Your task to perform on an android device: toggle improve location accuracy Image 0: 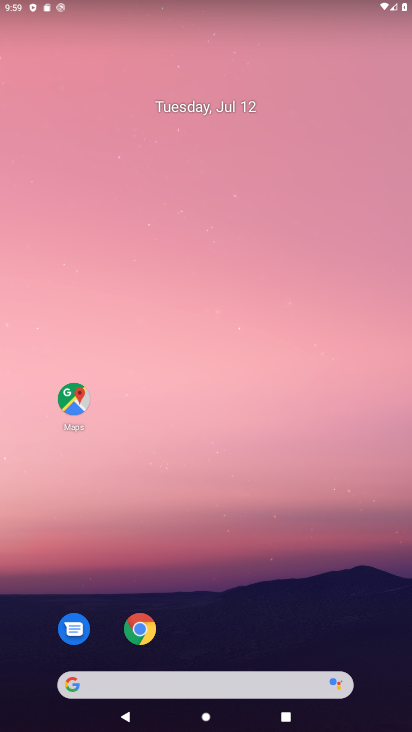
Step 0: drag from (343, 546) to (292, 82)
Your task to perform on an android device: toggle improve location accuracy Image 1: 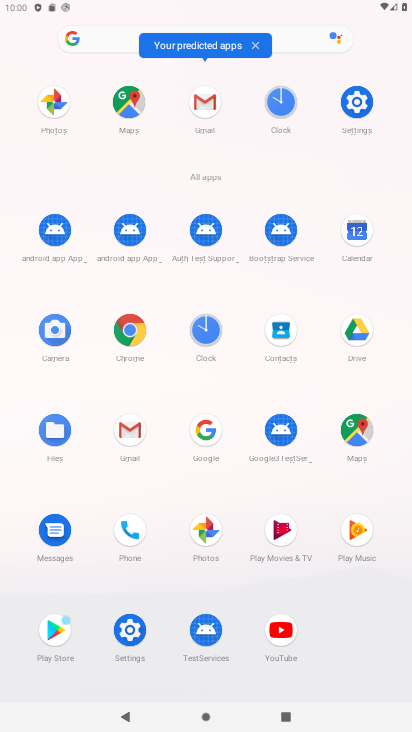
Step 1: click (132, 628)
Your task to perform on an android device: toggle improve location accuracy Image 2: 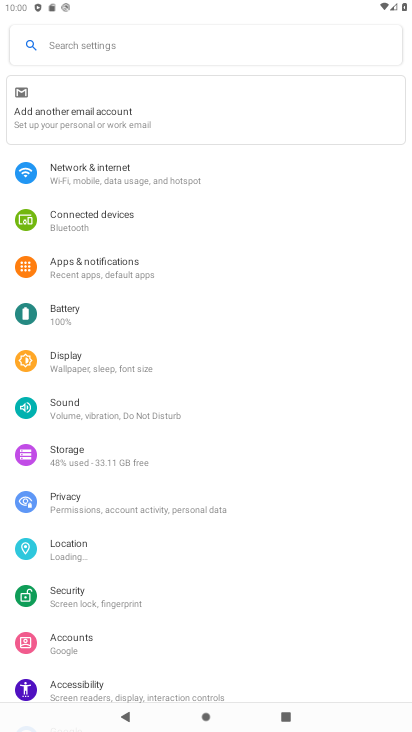
Step 2: click (113, 555)
Your task to perform on an android device: toggle improve location accuracy Image 3: 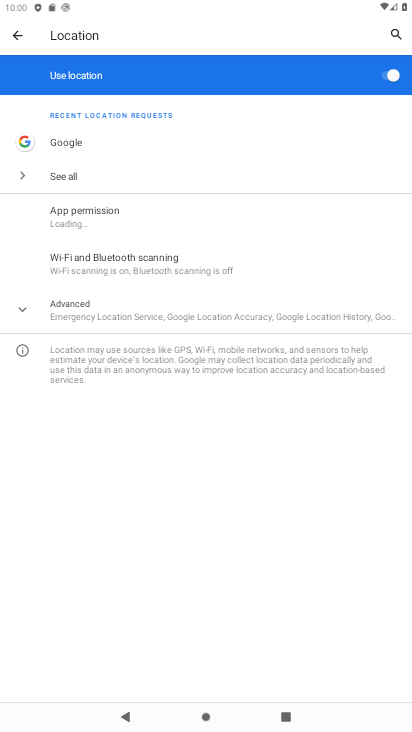
Step 3: click (206, 298)
Your task to perform on an android device: toggle improve location accuracy Image 4: 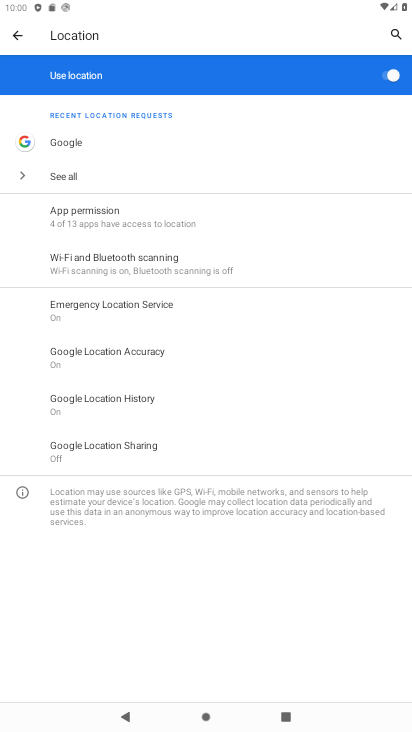
Step 4: click (100, 354)
Your task to perform on an android device: toggle improve location accuracy Image 5: 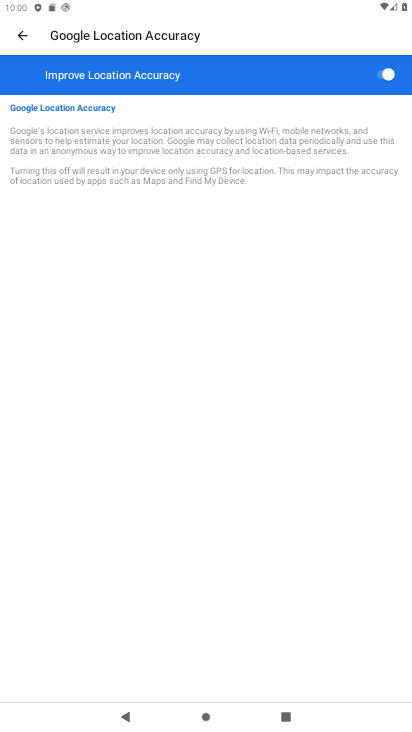
Step 5: click (387, 71)
Your task to perform on an android device: toggle improve location accuracy Image 6: 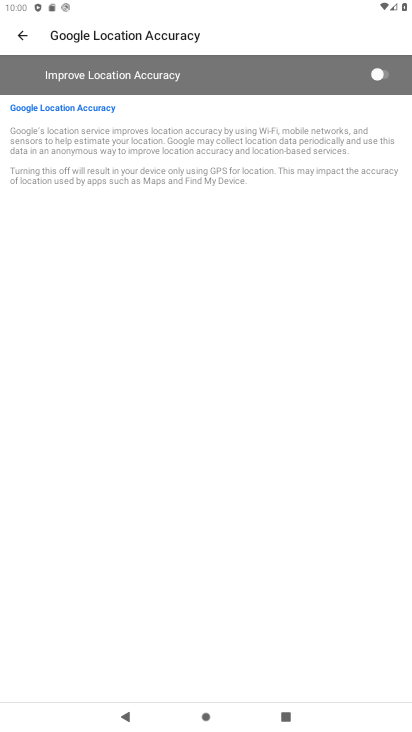
Step 6: task complete